Your task to perform on an android device: Go to Android settings Image 0: 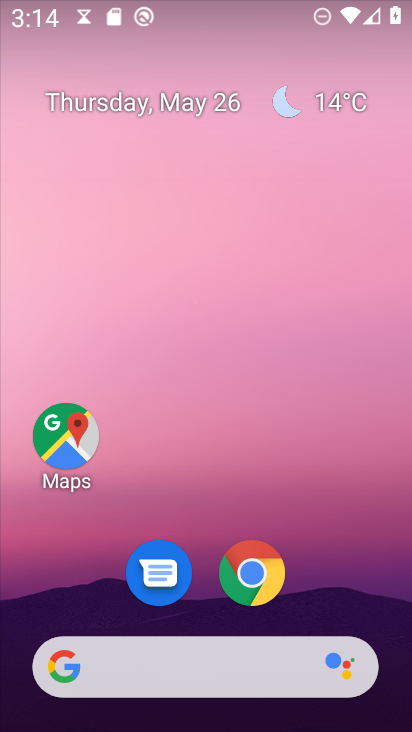
Step 0: drag from (314, 497) to (191, 18)
Your task to perform on an android device: Go to Android settings Image 1: 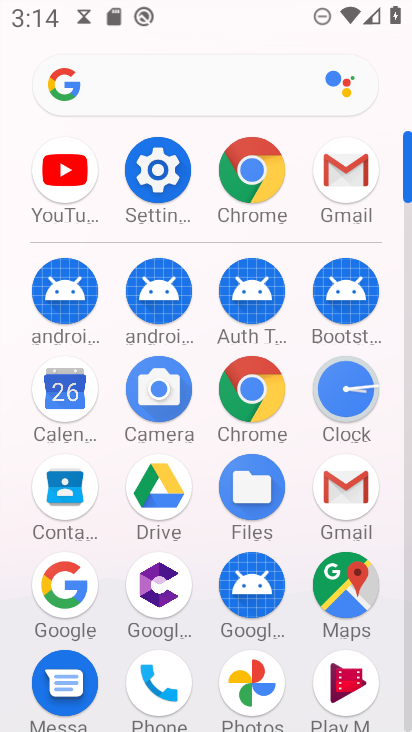
Step 1: drag from (9, 562) to (53, 197)
Your task to perform on an android device: Go to Android settings Image 2: 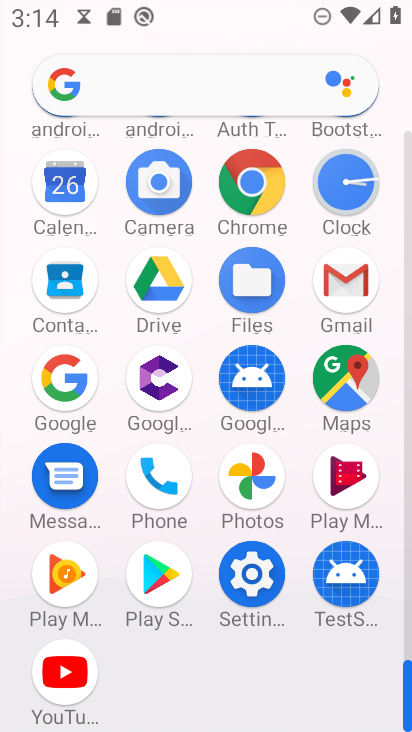
Step 2: click (251, 573)
Your task to perform on an android device: Go to Android settings Image 3: 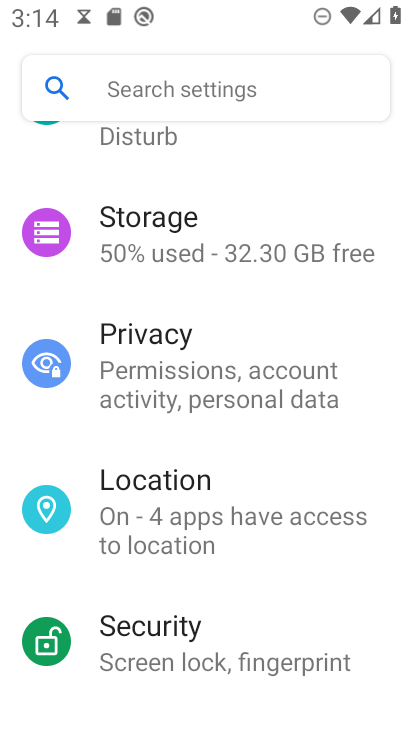
Step 3: task complete